Your task to perform on an android device: Open location settings Image 0: 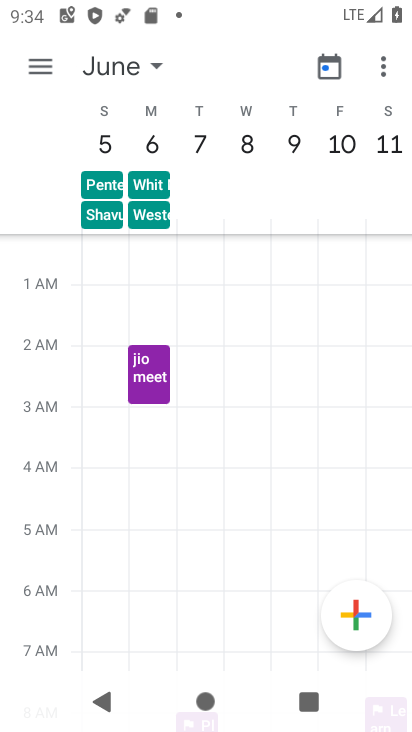
Step 0: press home button
Your task to perform on an android device: Open location settings Image 1: 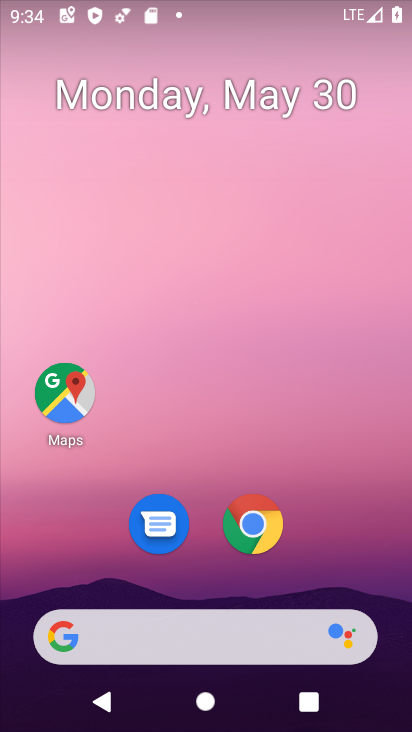
Step 1: drag from (316, 522) to (286, 13)
Your task to perform on an android device: Open location settings Image 2: 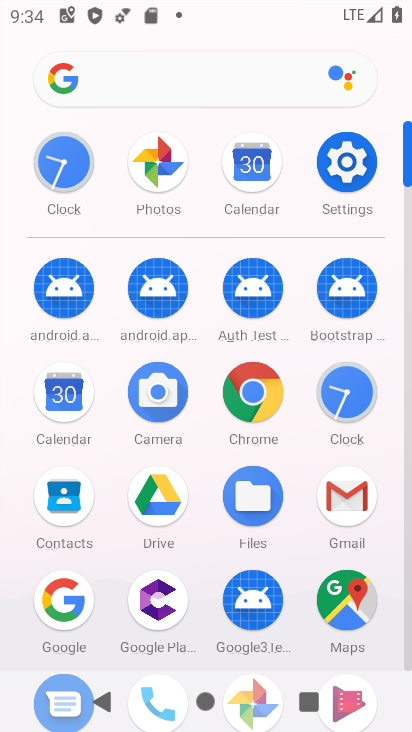
Step 2: click (342, 154)
Your task to perform on an android device: Open location settings Image 3: 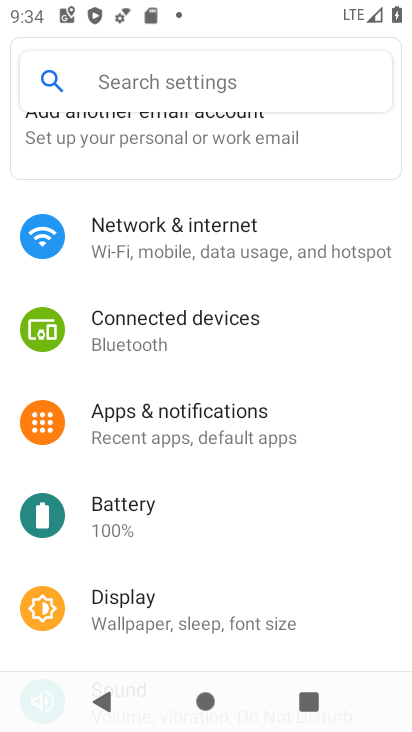
Step 3: drag from (267, 512) to (255, 116)
Your task to perform on an android device: Open location settings Image 4: 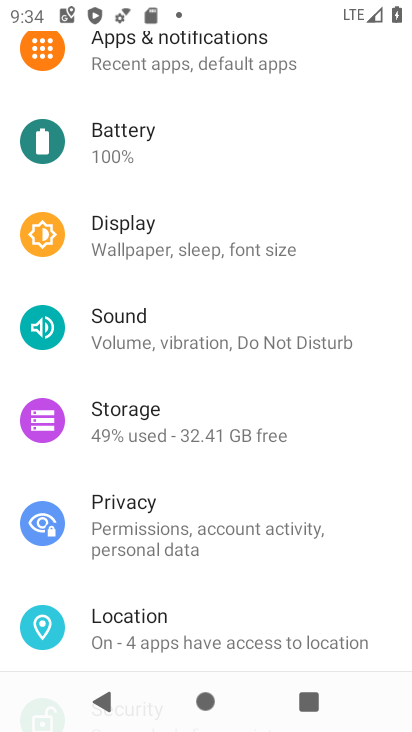
Step 4: click (227, 628)
Your task to perform on an android device: Open location settings Image 5: 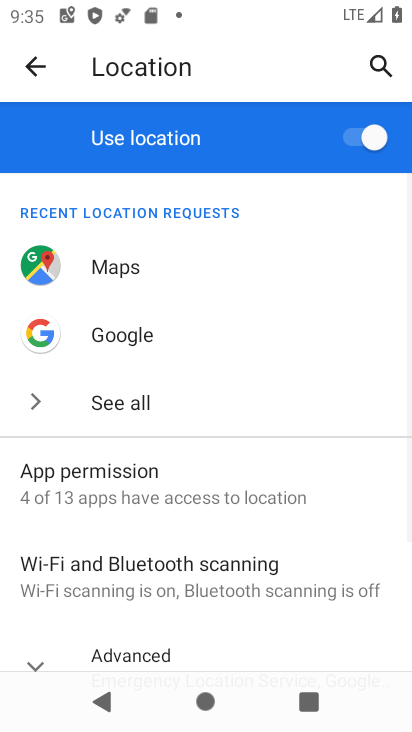
Step 5: task complete